Your task to perform on an android device: open device folders in google photos Image 0: 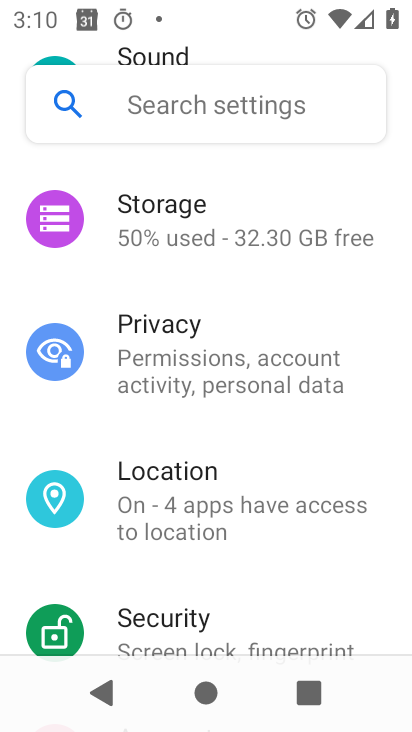
Step 0: press home button
Your task to perform on an android device: open device folders in google photos Image 1: 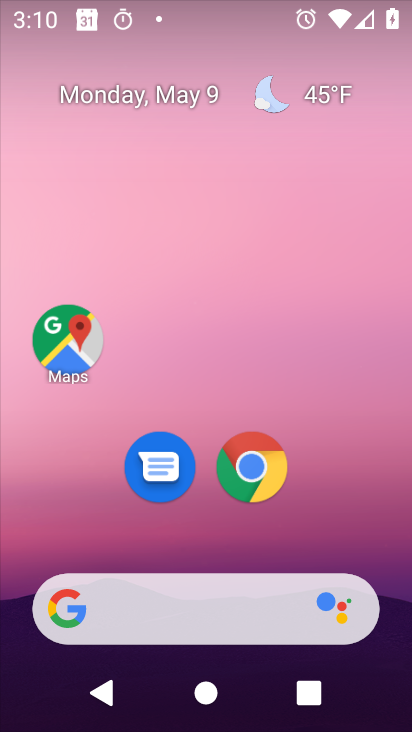
Step 1: drag from (340, 496) to (251, 22)
Your task to perform on an android device: open device folders in google photos Image 2: 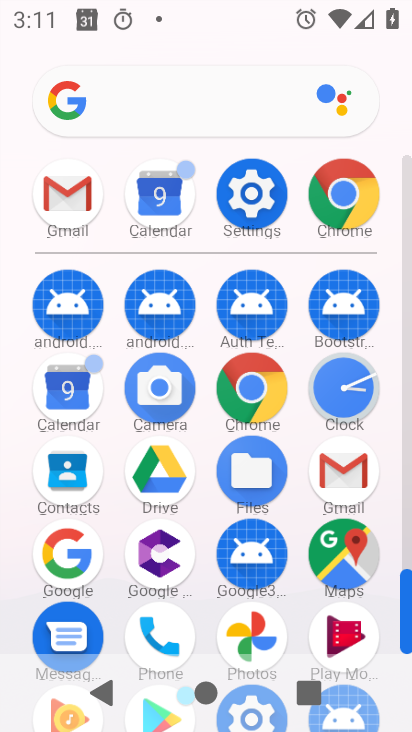
Step 2: click (249, 637)
Your task to perform on an android device: open device folders in google photos Image 3: 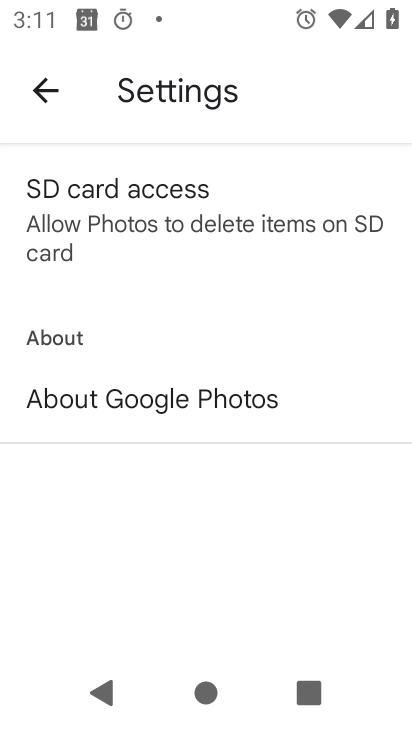
Step 3: click (40, 85)
Your task to perform on an android device: open device folders in google photos Image 4: 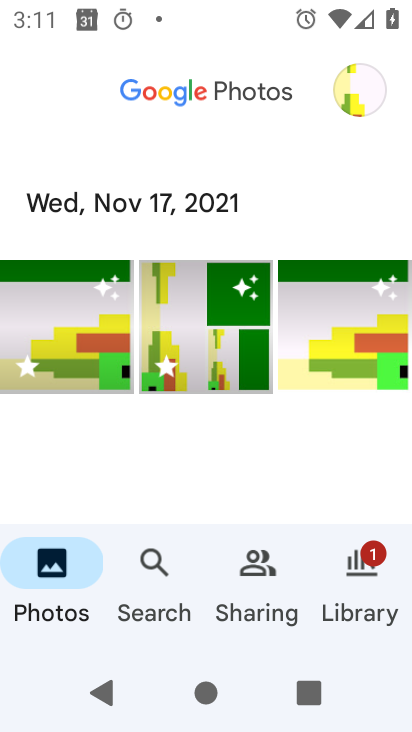
Step 4: click (360, 77)
Your task to perform on an android device: open device folders in google photos Image 5: 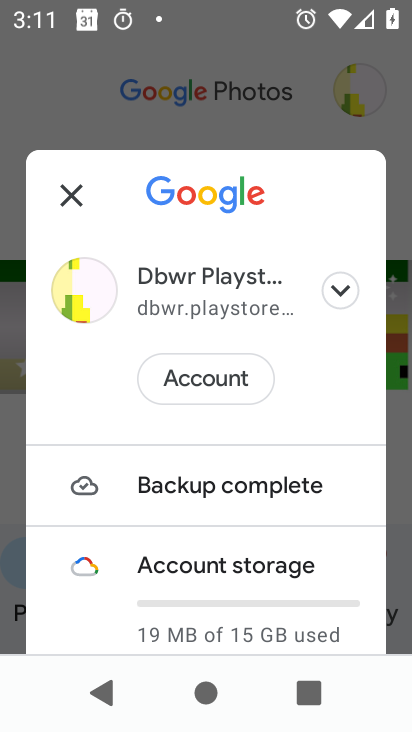
Step 5: drag from (236, 529) to (310, 196)
Your task to perform on an android device: open device folders in google photos Image 6: 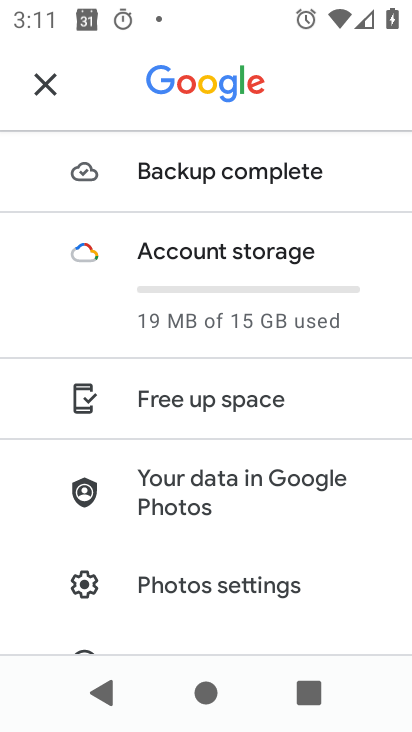
Step 6: click (56, 81)
Your task to perform on an android device: open device folders in google photos Image 7: 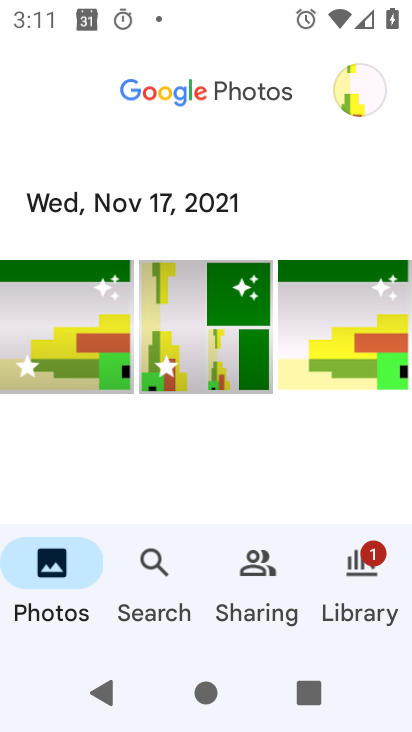
Step 7: click (326, 544)
Your task to perform on an android device: open device folders in google photos Image 8: 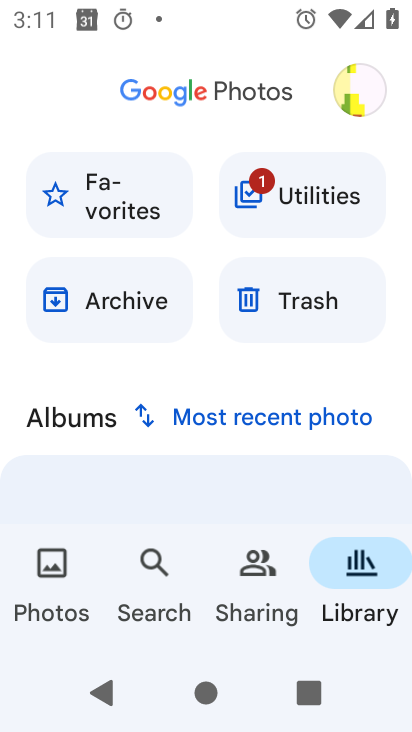
Step 8: task complete